Your task to perform on an android device: Open ESPN.com Image 0: 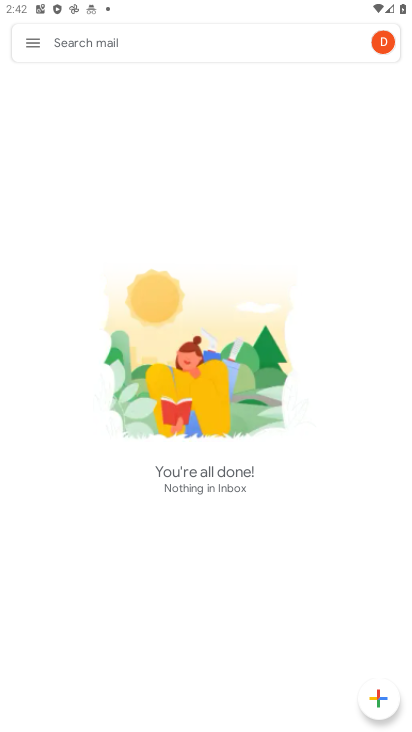
Step 0: task complete